Your task to perform on an android device: turn on data saver in the chrome app Image 0: 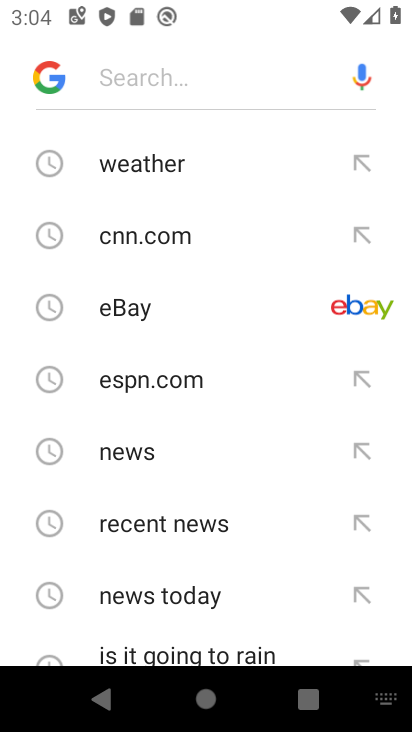
Step 0: press home button
Your task to perform on an android device: turn on data saver in the chrome app Image 1: 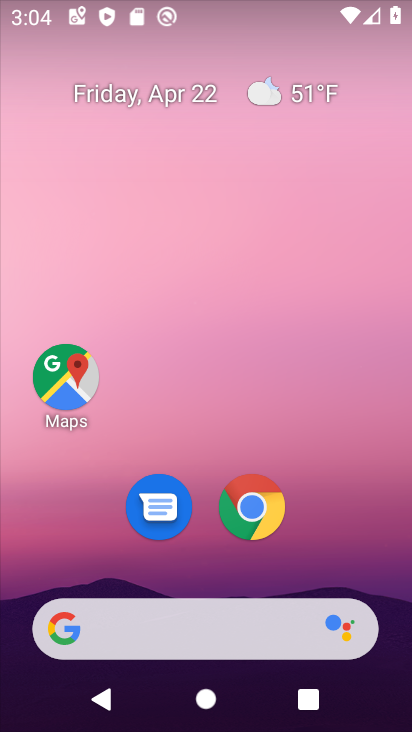
Step 1: click (242, 517)
Your task to perform on an android device: turn on data saver in the chrome app Image 2: 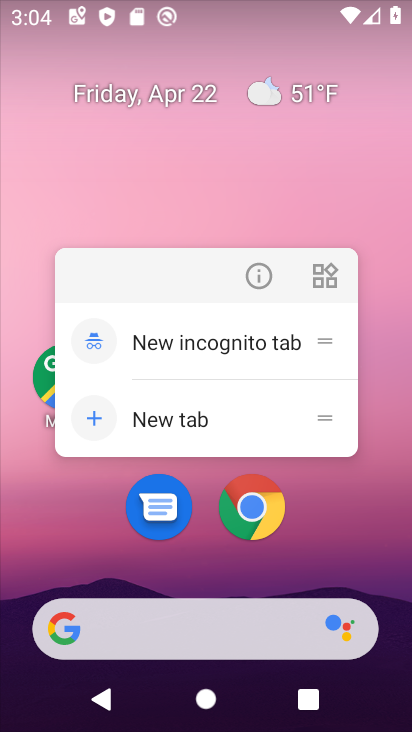
Step 2: click (244, 511)
Your task to perform on an android device: turn on data saver in the chrome app Image 3: 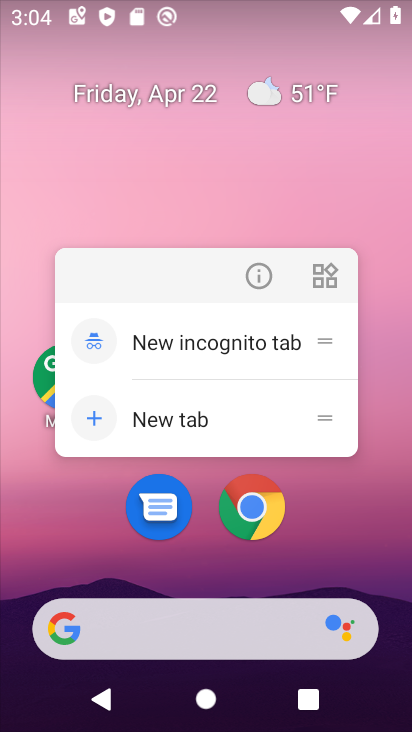
Step 3: click (257, 511)
Your task to perform on an android device: turn on data saver in the chrome app Image 4: 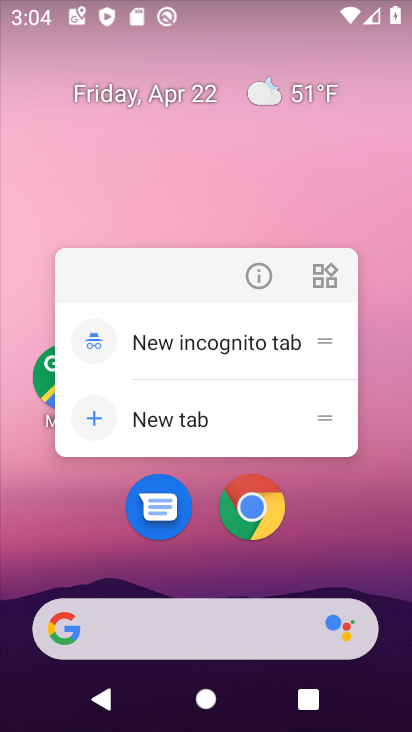
Step 4: click (267, 507)
Your task to perform on an android device: turn on data saver in the chrome app Image 5: 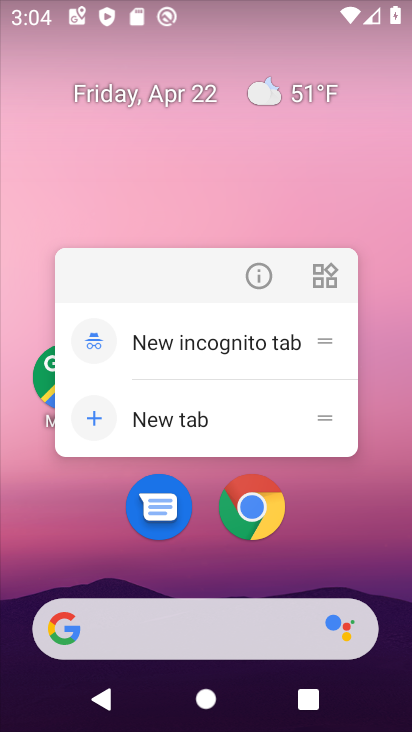
Step 5: click (264, 510)
Your task to perform on an android device: turn on data saver in the chrome app Image 6: 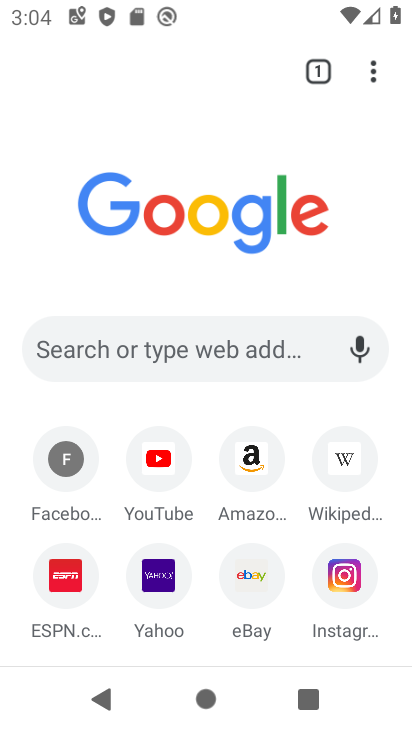
Step 6: drag from (372, 72) to (157, 501)
Your task to perform on an android device: turn on data saver in the chrome app Image 7: 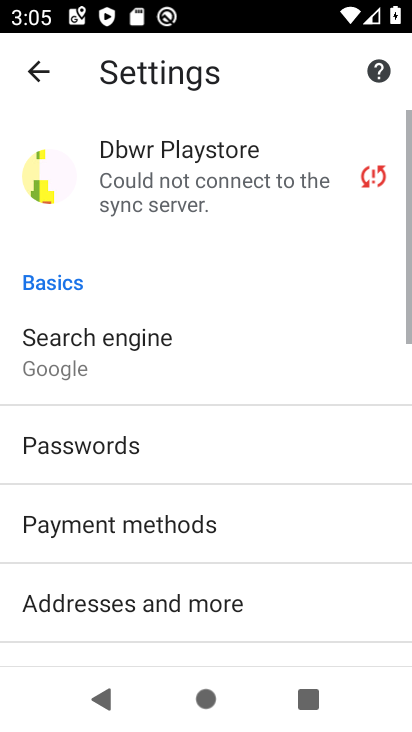
Step 7: drag from (149, 583) to (270, 36)
Your task to perform on an android device: turn on data saver in the chrome app Image 8: 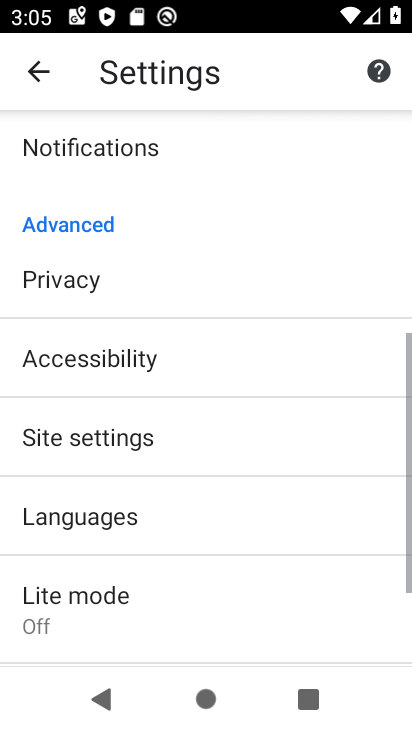
Step 8: click (106, 622)
Your task to perform on an android device: turn on data saver in the chrome app Image 9: 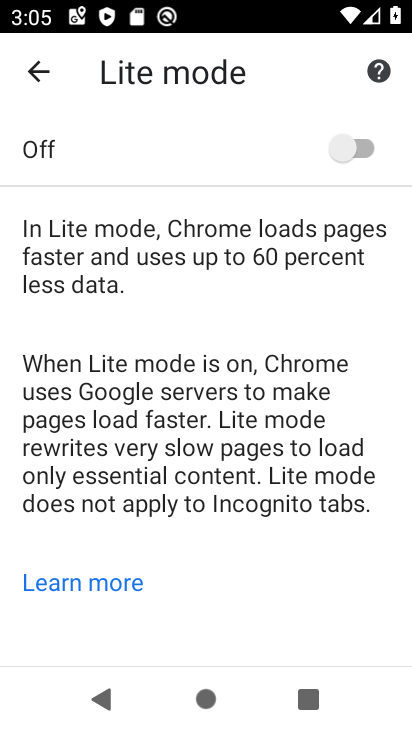
Step 9: click (356, 143)
Your task to perform on an android device: turn on data saver in the chrome app Image 10: 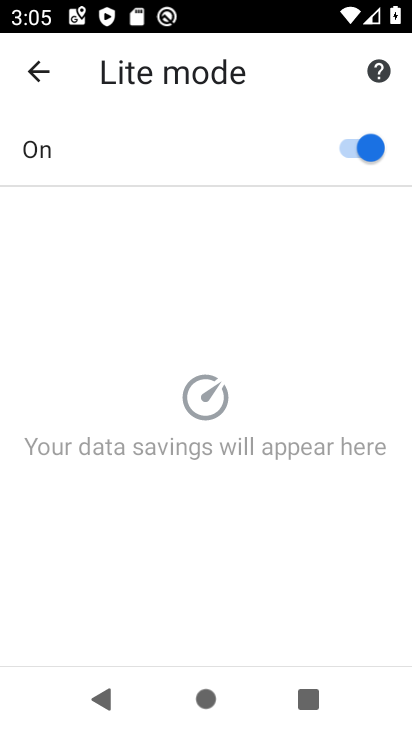
Step 10: task complete